Your task to perform on an android device: Open Android settings Image 0: 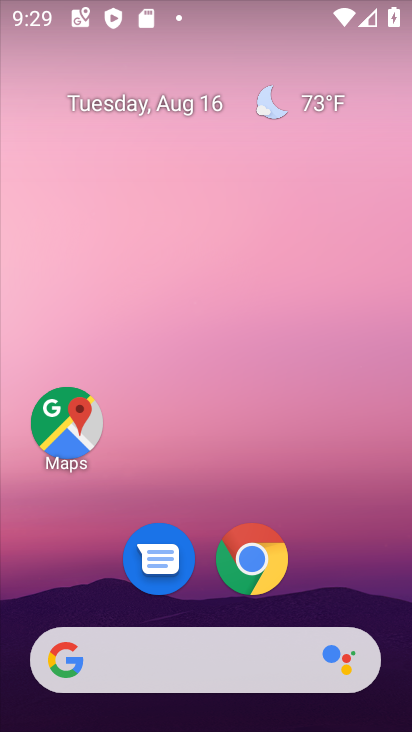
Step 0: drag from (352, 567) to (343, 26)
Your task to perform on an android device: Open Android settings Image 1: 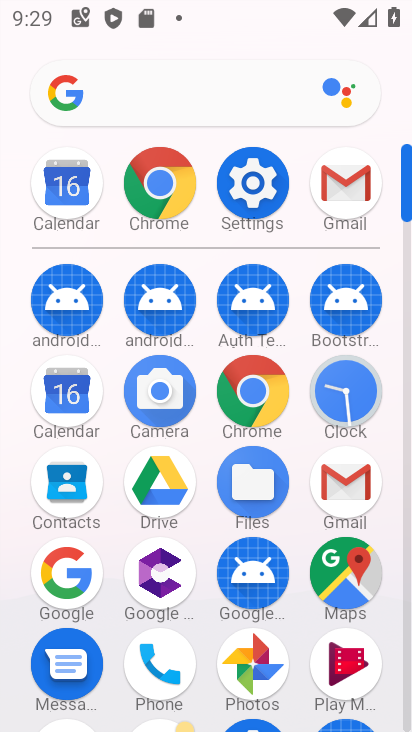
Step 1: click (246, 186)
Your task to perform on an android device: Open Android settings Image 2: 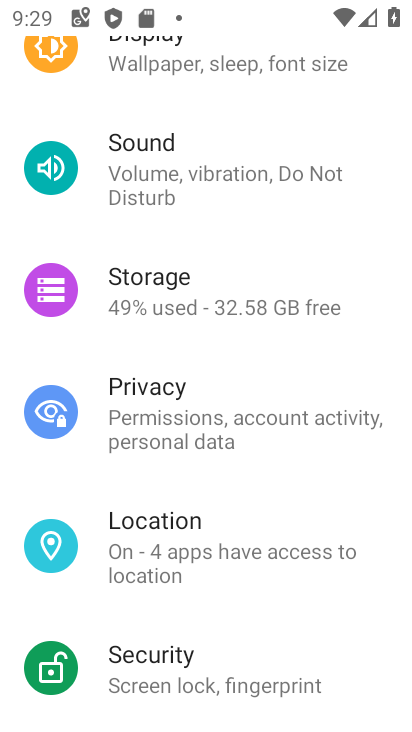
Step 2: drag from (280, 662) to (278, 45)
Your task to perform on an android device: Open Android settings Image 3: 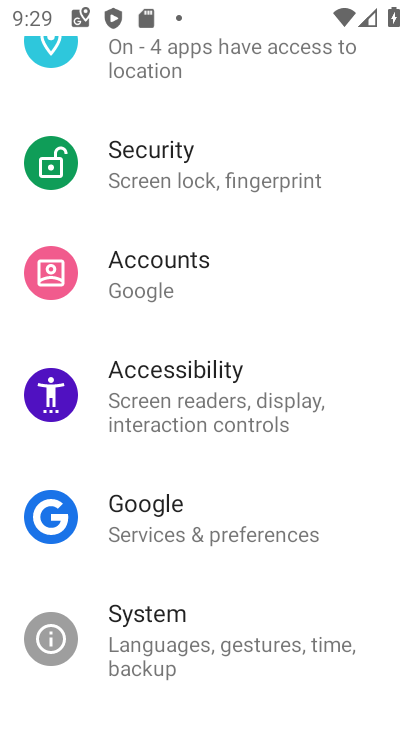
Step 3: drag from (188, 643) to (209, 137)
Your task to perform on an android device: Open Android settings Image 4: 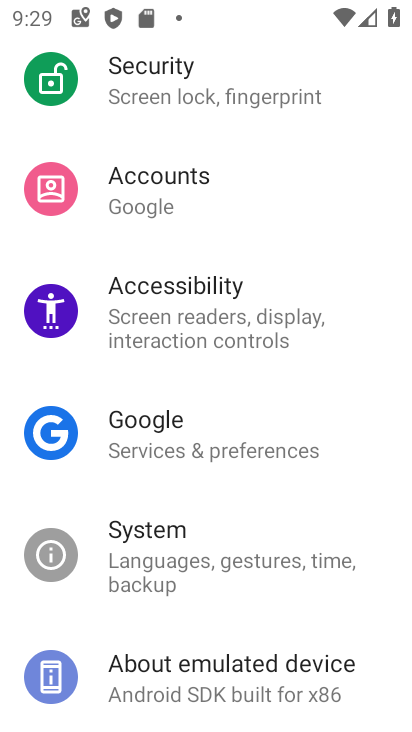
Step 4: click (208, 663)
Your task to perform on an android device: Open Android settings Image 5: 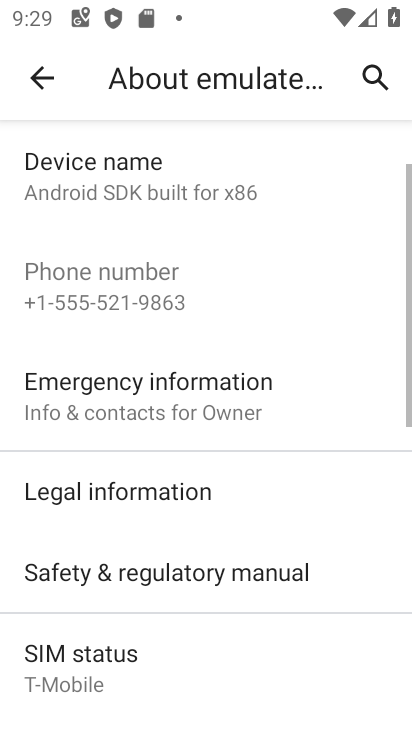
Step 5: drag from (283, 627) to (269, 135)
Your task to perform on an android device: Open Android settings Image 6: 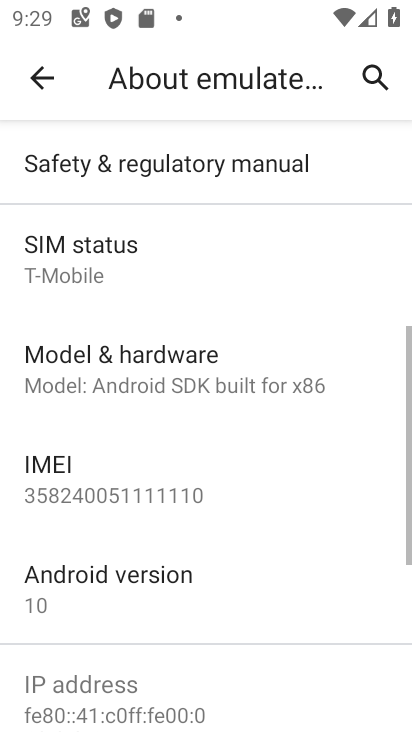
Step 6: click (158, 585)
Your task to perform on an android device: Open Android settings Image 7: 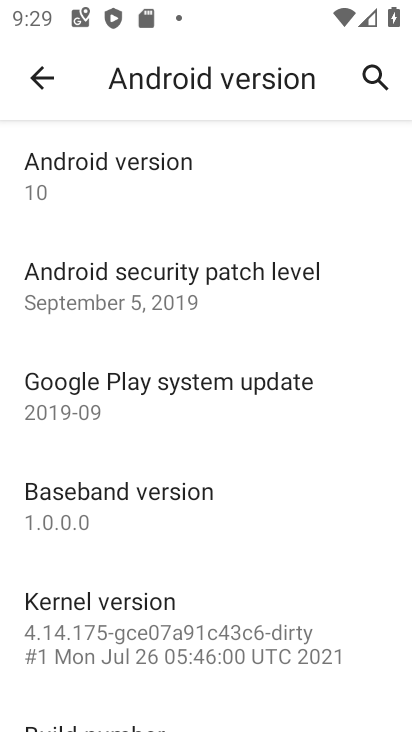
Step 7: task complete